Your task to perform on an android device: turn pop-ups off in chrome Image 0: 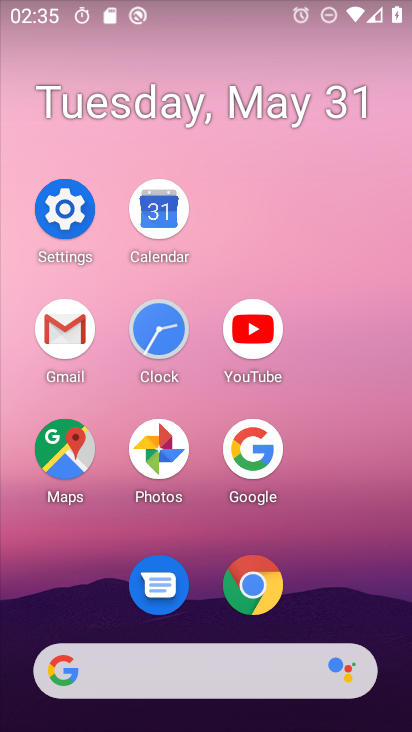
Step 0: click (254, 582)
Your task to perform on an android device: turn pop-ups off in chrome Image 1: 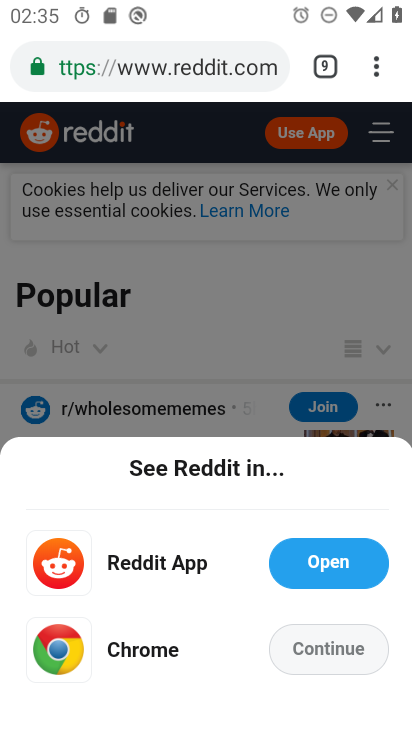
Step 1: click (369, 69)
Your task to perform on an android device: turn pop-ups off in chrome Image 2: 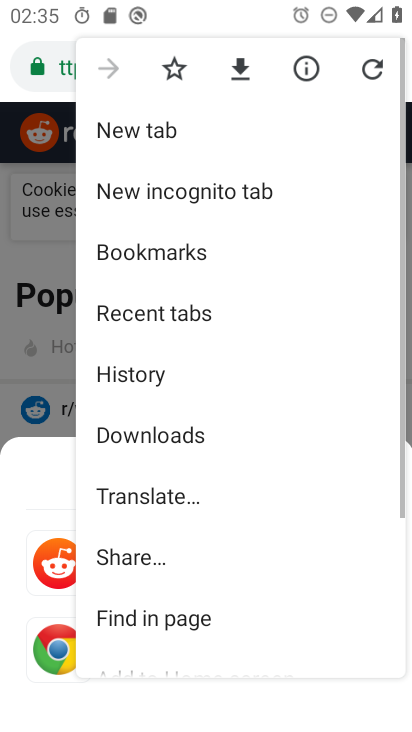
Step 2: drag from (251, 432) to (307, 116)
Your task to perform on an android device: turn pop-ups off in chrome Image 3: 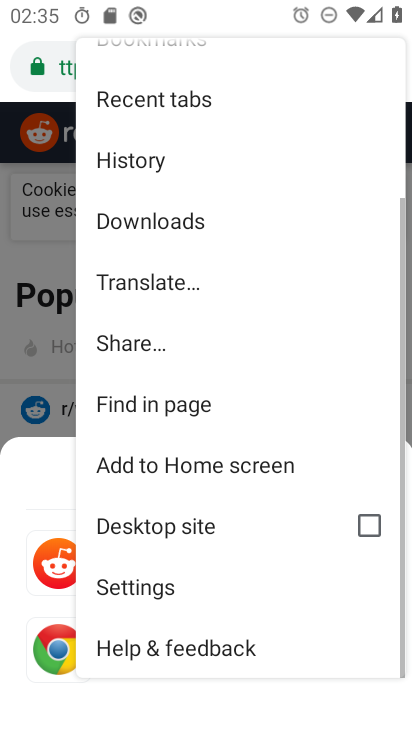
Step 3: click (184, 606)
Your task to perform on an android device: turn pop-ups off in chrome Image 4: 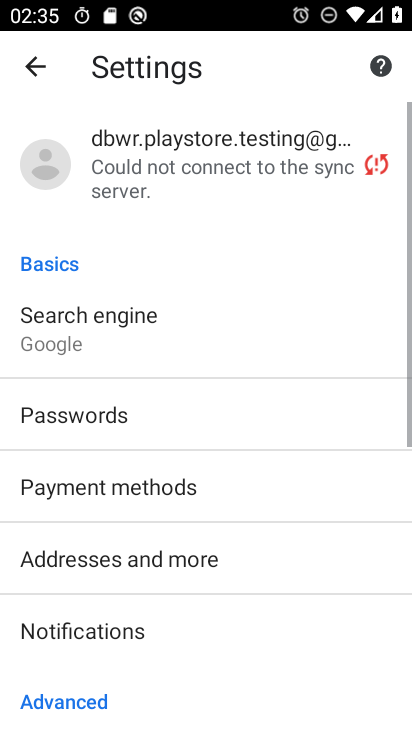
Step 4: drag from (184, 606) to (232, 177)
Your task to perform on an android device: turn pop-ups off in chrome Image 5: 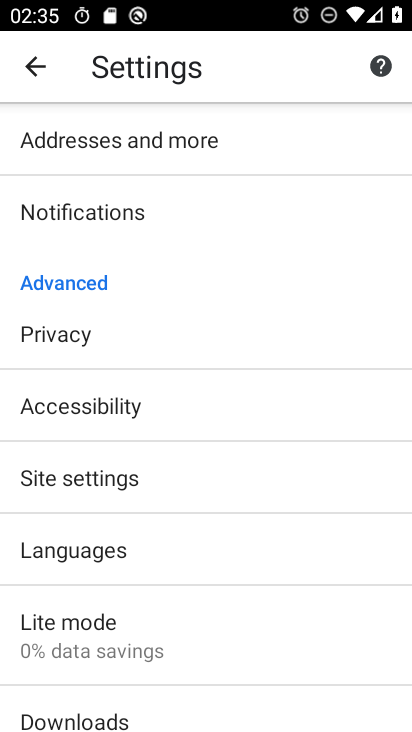
Step 5: click (154, 472)
Your task to perform on an android device: turn pop-ups off in chrome Image 6: 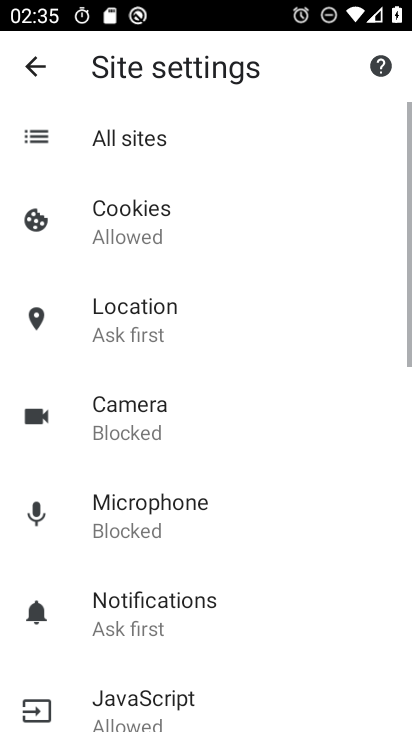
Step 6: drag from (154, 472) to (216, 182)
Your task to perform on an android device: turn pop-ups off in chrome Image 7: 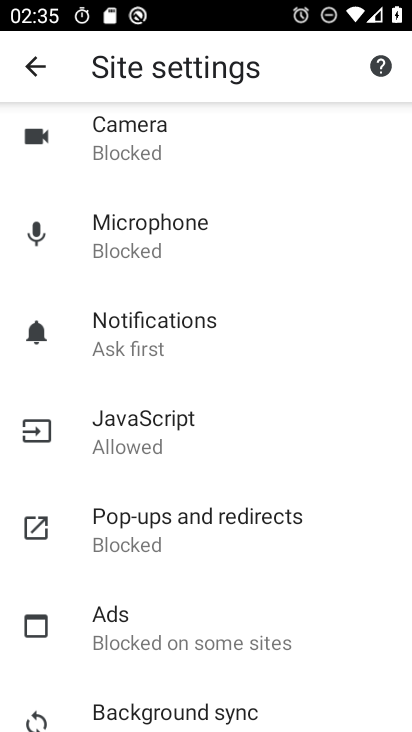
Step 7: click (205, 543)
Your task to perform on an android device: turn pop-ups off in chrome Image 8: 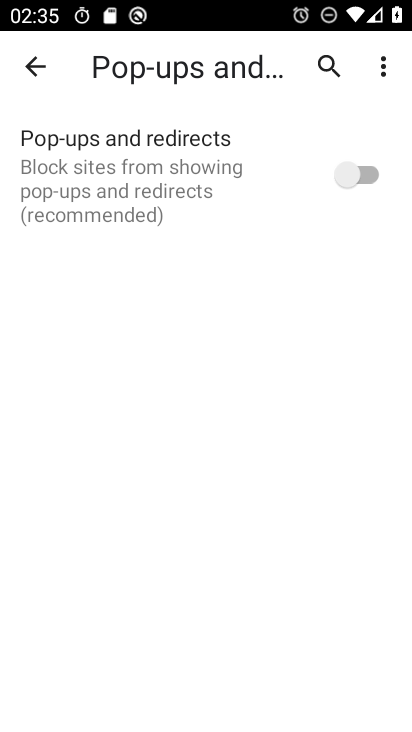
Step 8: click (338, 168)
Your task to perform on an android device: turn pop-ups off in chrome Image 9: 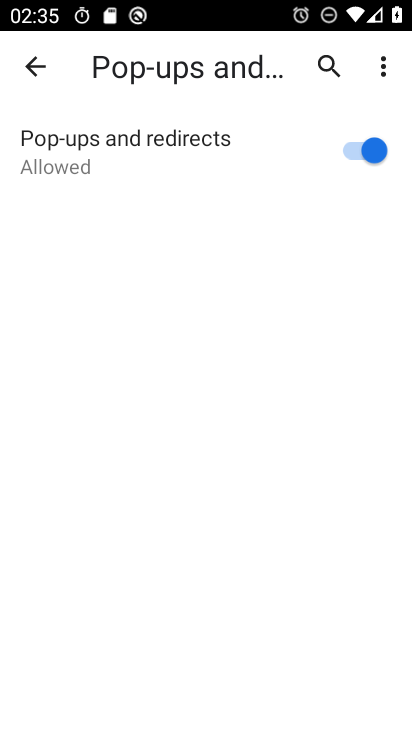
Step 9: click (355, 159)
Your task to perform on an android device: turn pop-ups off in chrome Image 10: 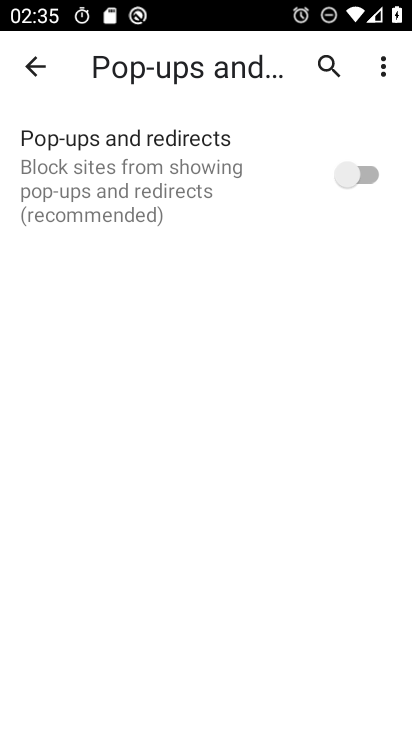
Step 10: task complete